Your task to perform on an android device: uninstall "HBO Max: Stream TV & Movies" Image 0: 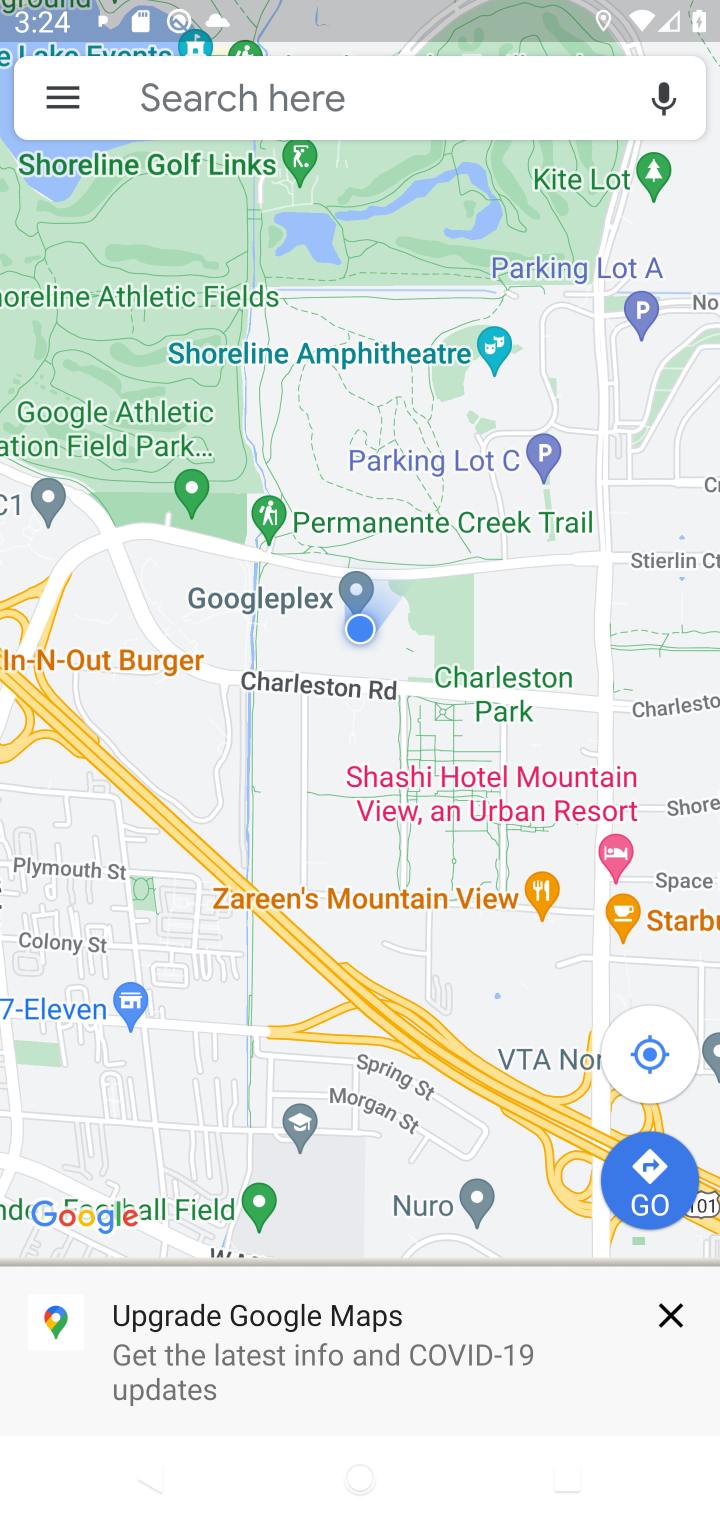
Step 0: press home button
Your task to perform on an android device: uninstall "HBO Max: Stream TV & Movies" Image 1: 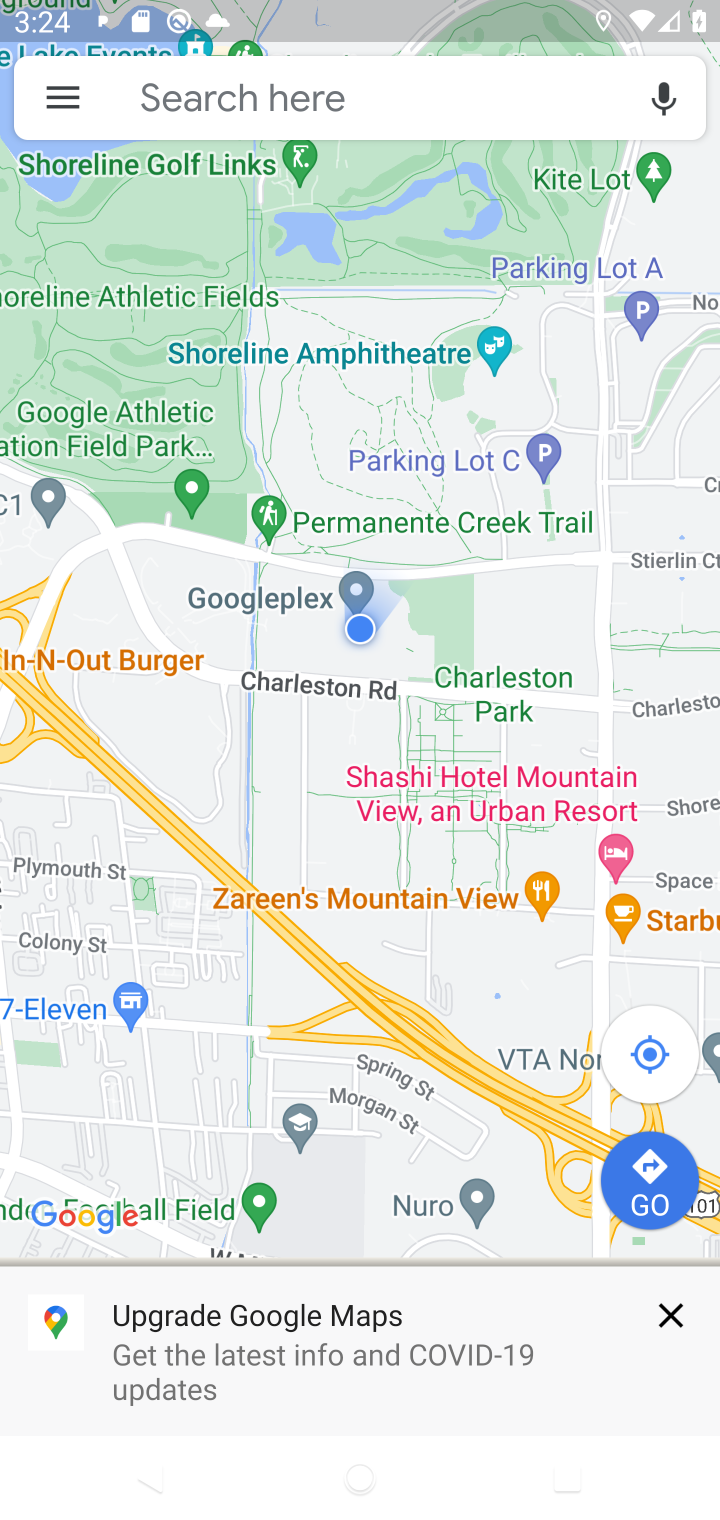
Step 1: press home button
Your task to perform on an android device: uninstall "HBO Max: Stream TV & Movies" Image 2: 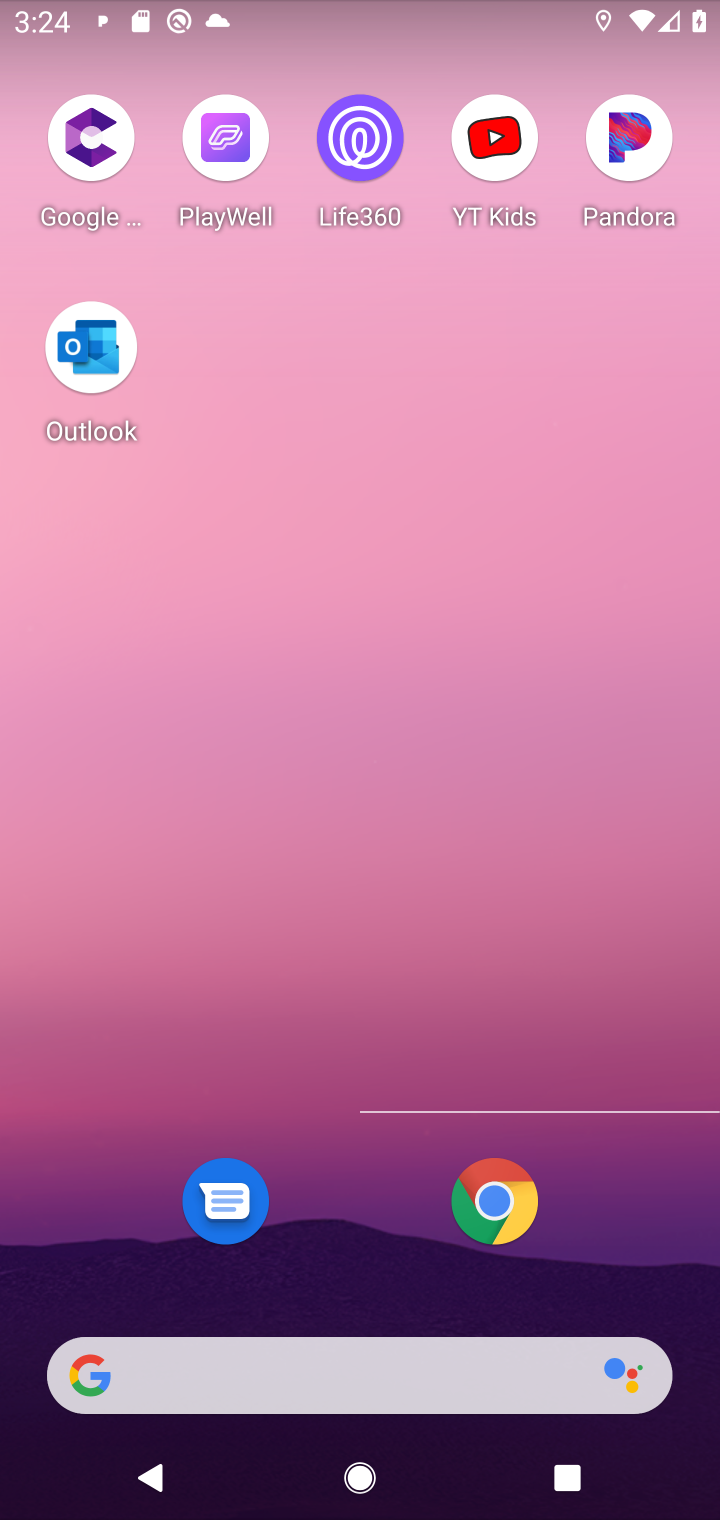
Step 2: press home button
Your task to perform on an android device: uninstall "HBO Max: Stream TV & Movies" Image 3: 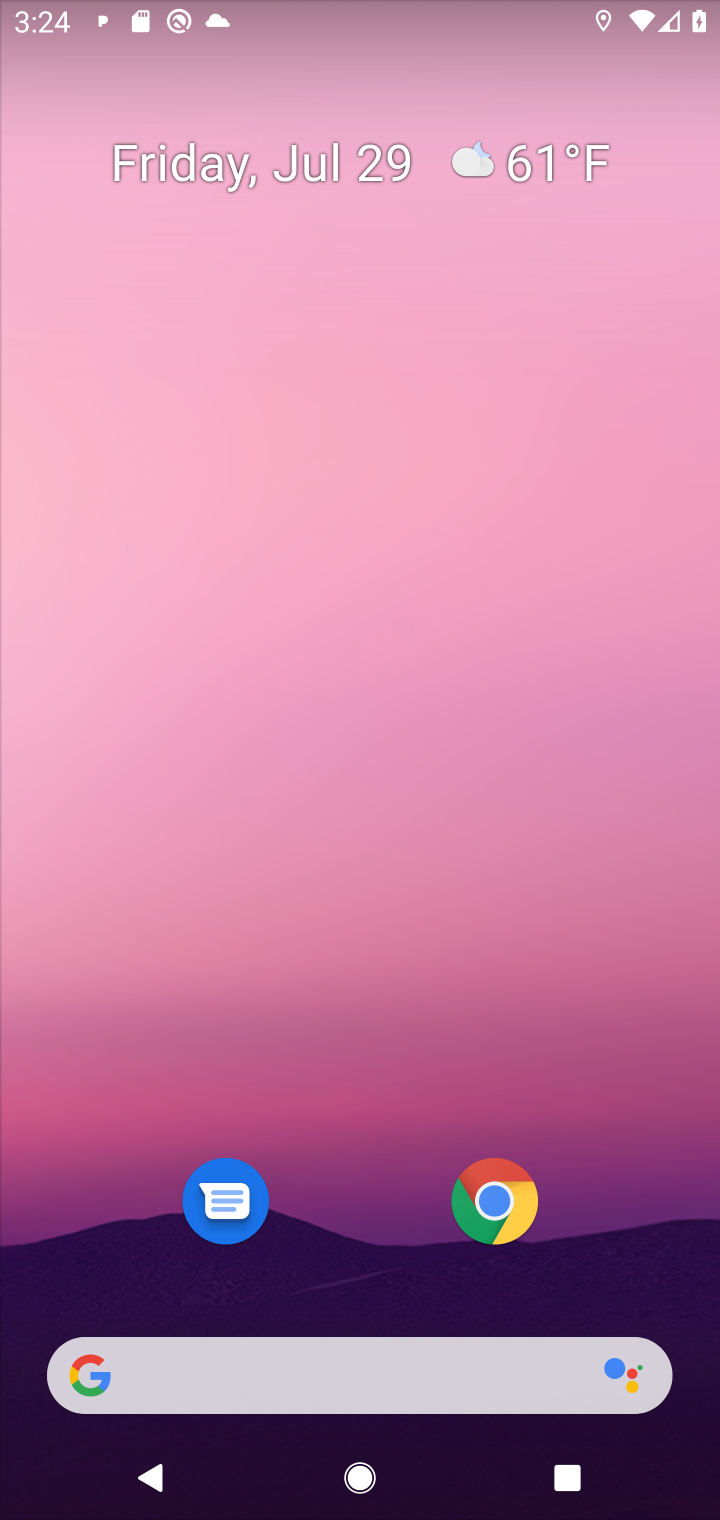
Step 3: press home button
Your task to perform on an android device: uninstall "HBO Max: Stream TV & Movies" Image 4: 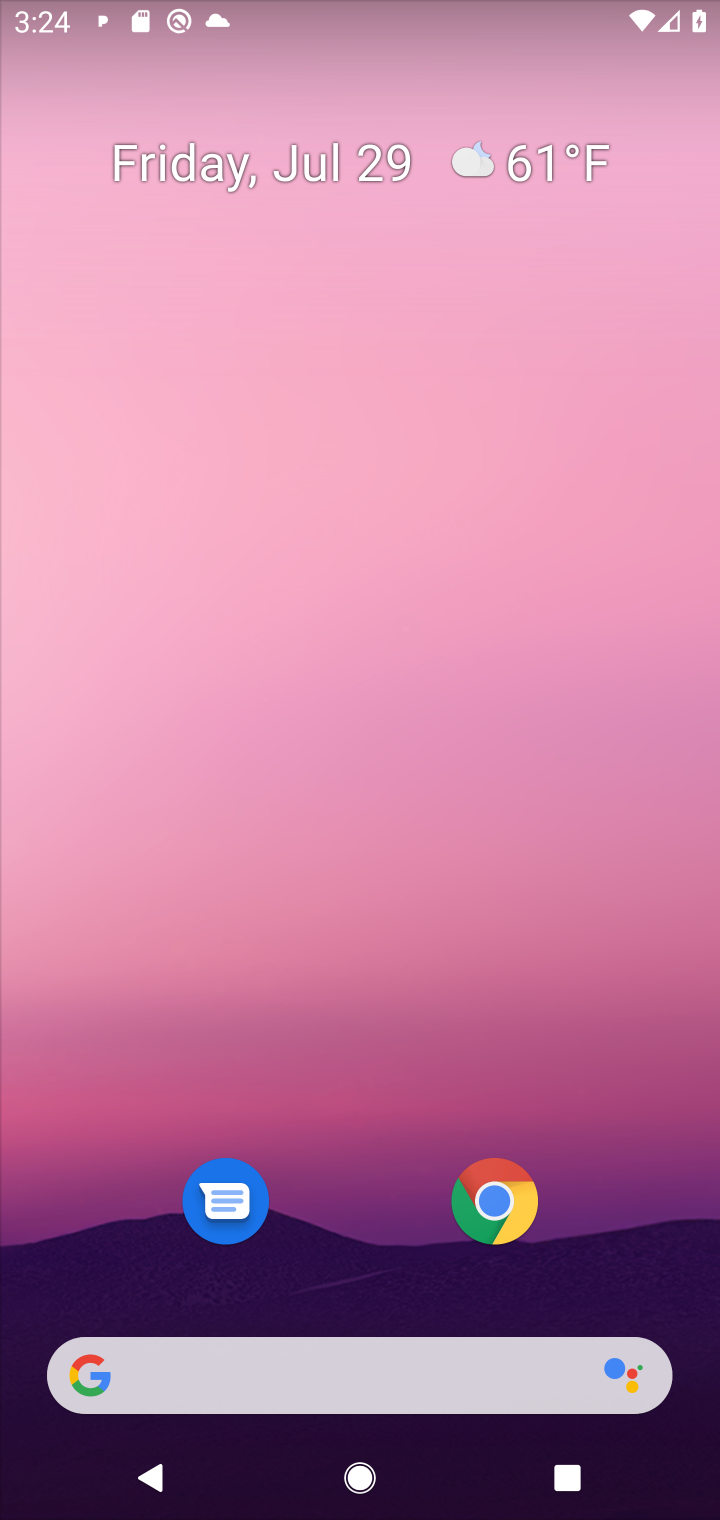
Step 4: click (406, 1021)
Your task to perform on an android device: uninstall "HBO Max: Stream TV & Movies" Image 5: 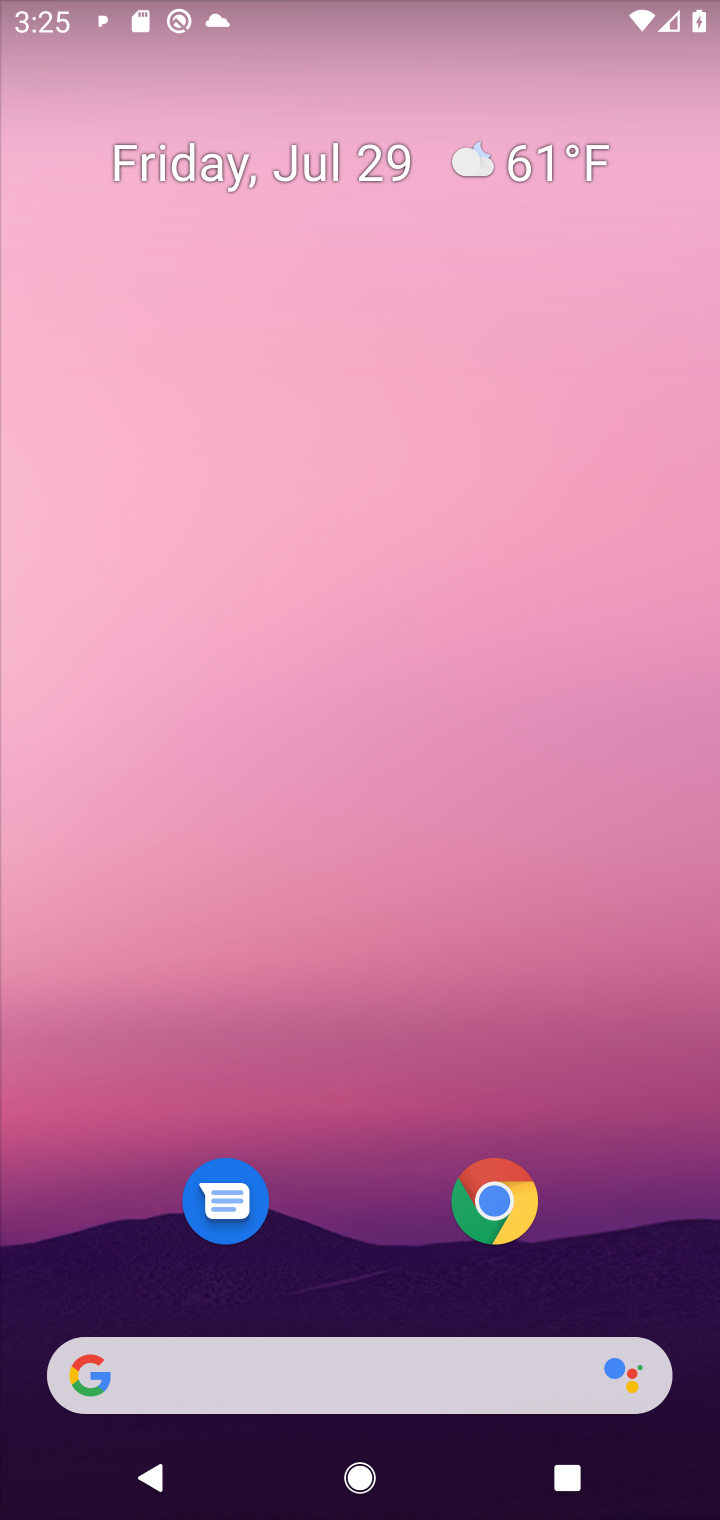
Step 5: drag from (488, 656) to (471, 456)
Your task to perform on an android device: uninstall "HBO Max: Stream TV & Movies" Image 6: 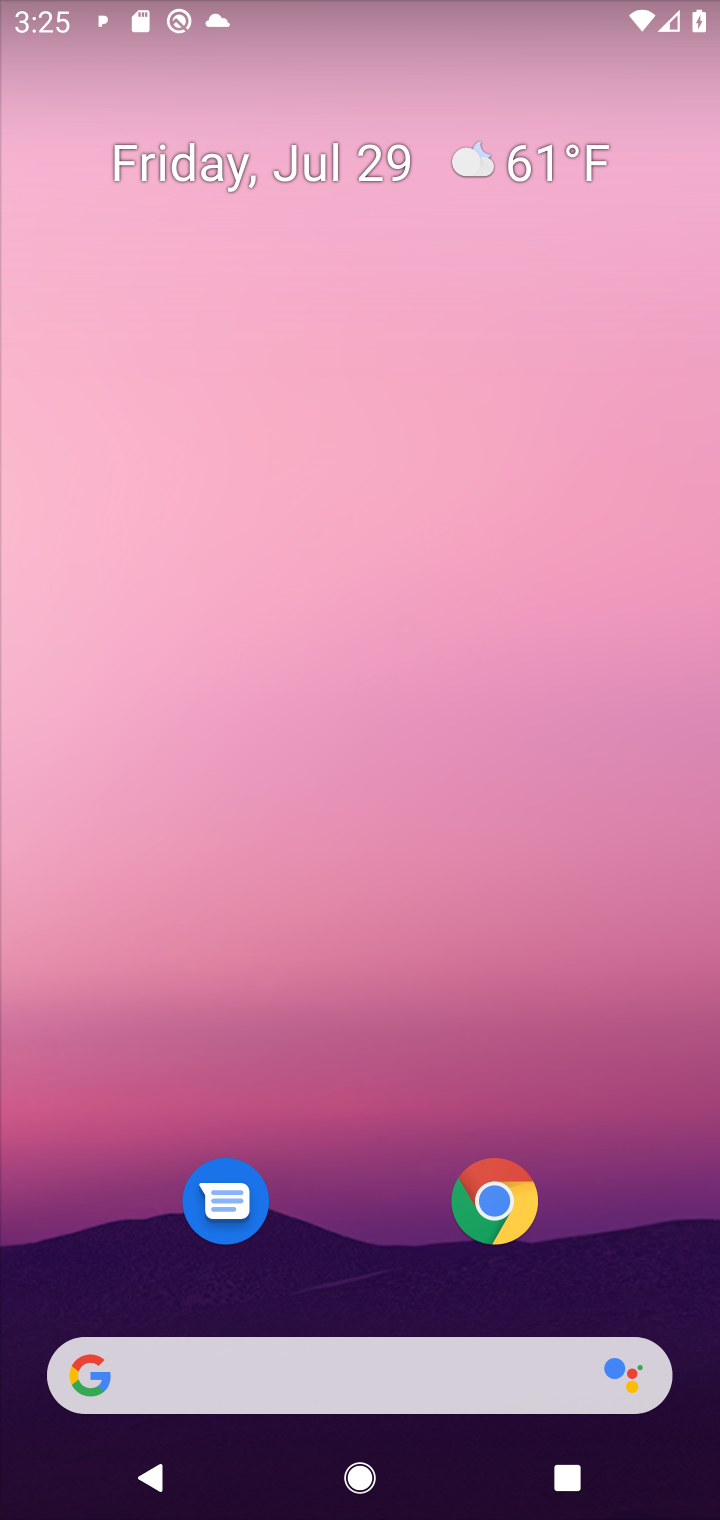
Step 6: drag from (643, 1293) to (402, 440)
Your task to perform on an android device: uninstall "HBO Max: Stream TV & Movies" Image 7: 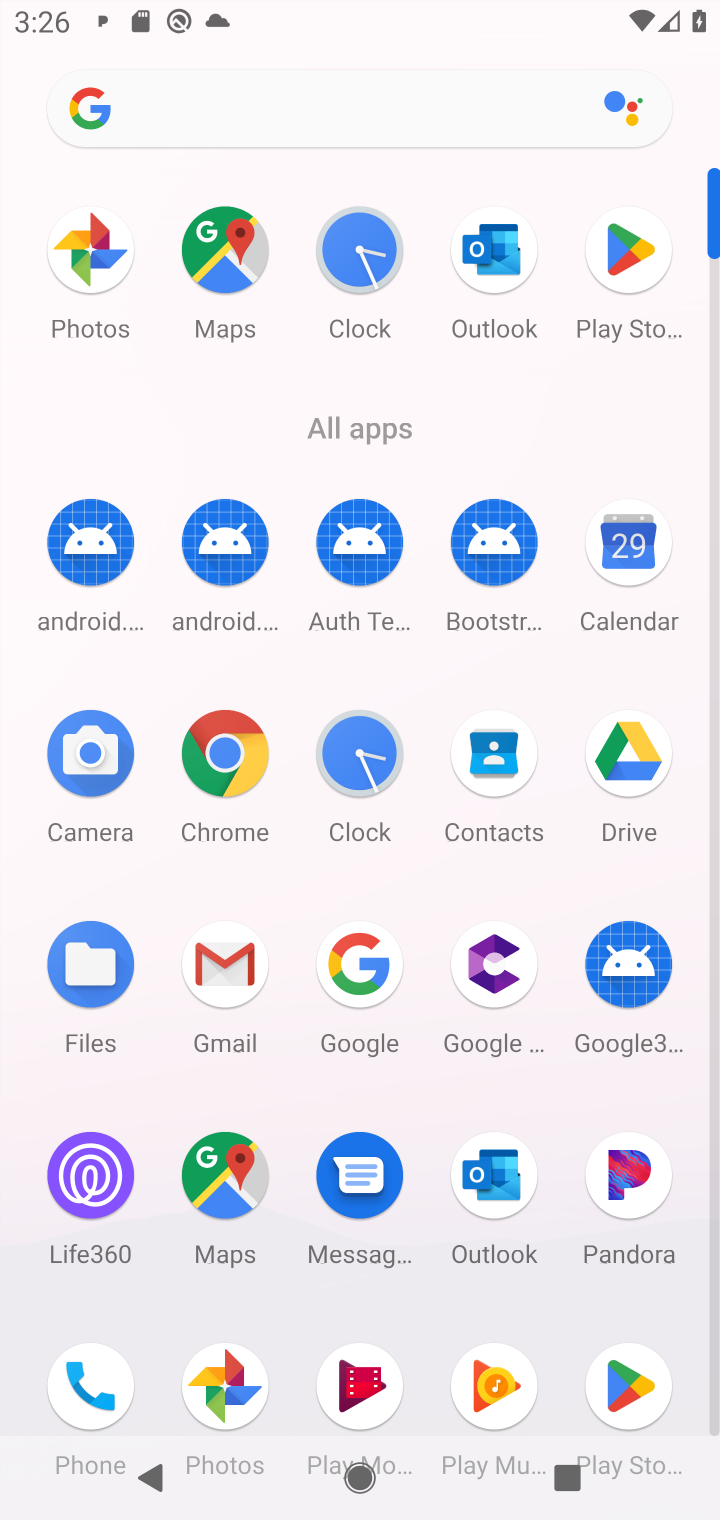
Step 7: click (632, 250)
Your task to perform on an android device: uninstall "HBO Max: Stream TV & Movies" Image 8: 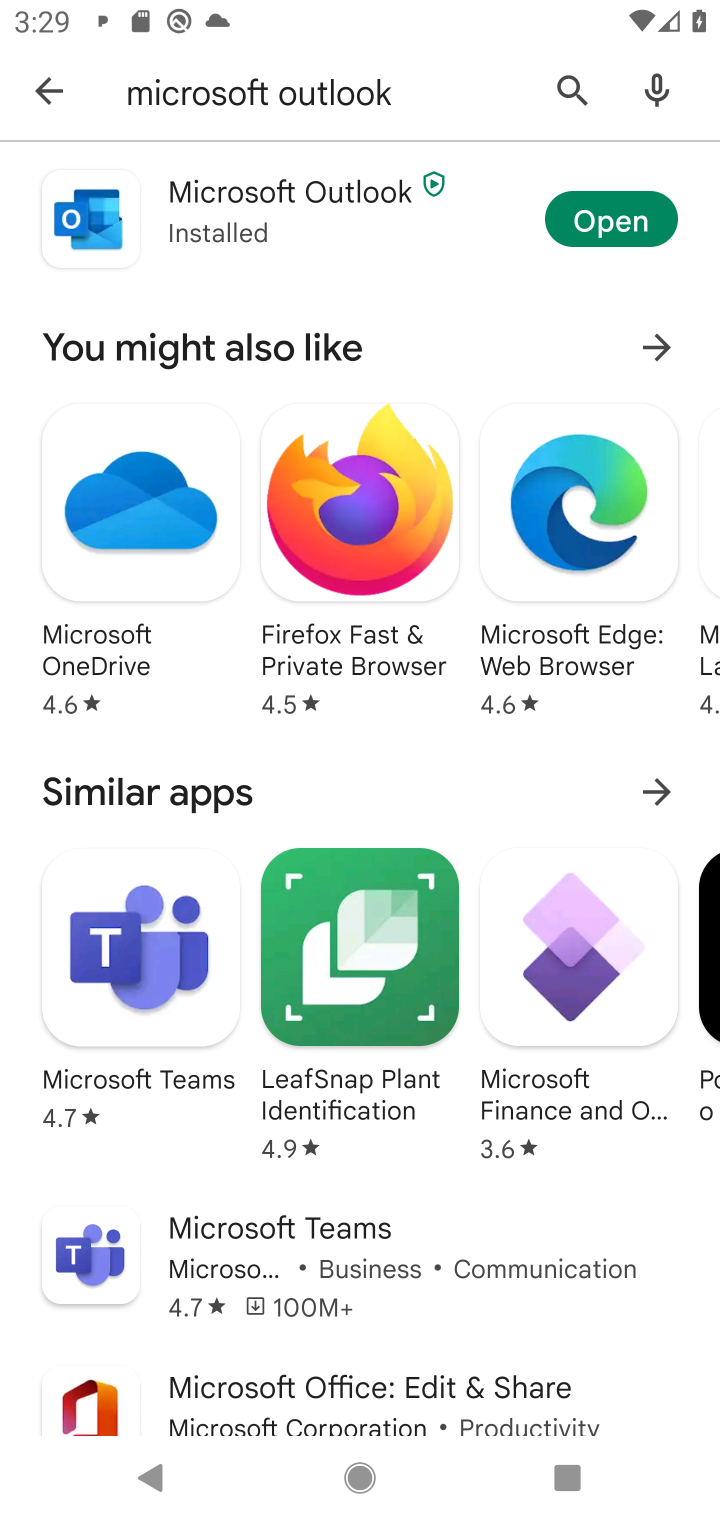
Step 8: click (557, 88)
Your task to perform on an android device: uninstall "HBO Max: Stream TV & Movies" Image 9: 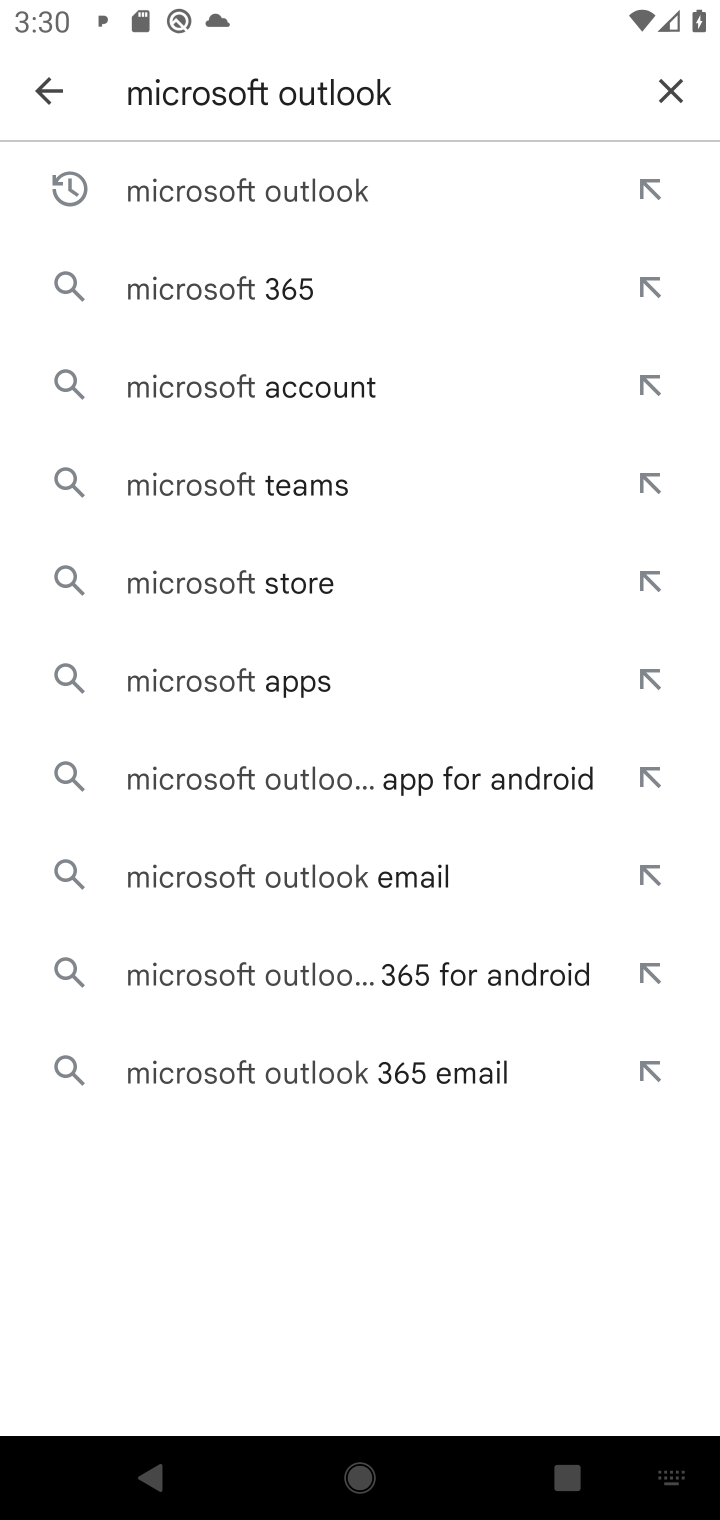
Step 9: click (657, 92)
Your task to perform on an android device: uninstall "HBO Max: Stream TV & Movies" Image 10: 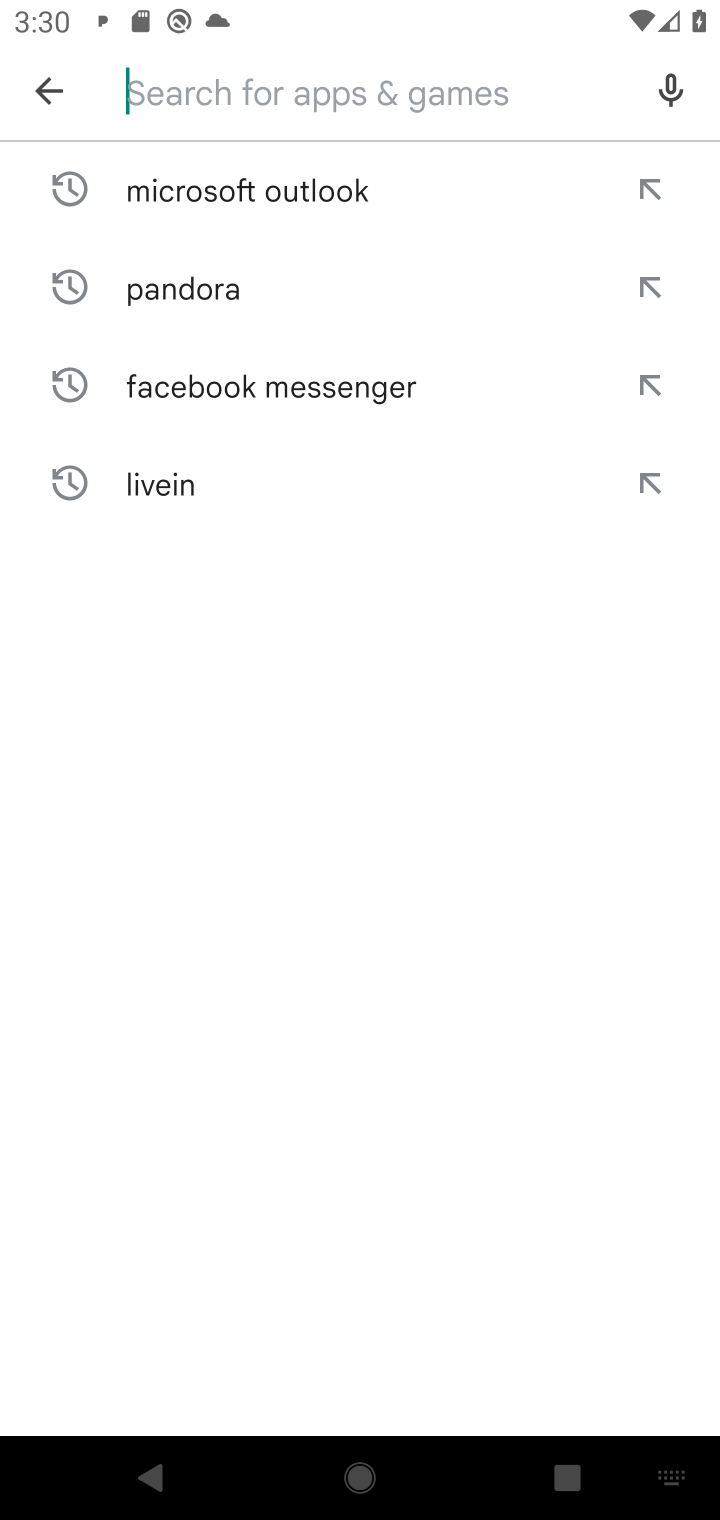
Step 10: type "HBO Max: Stream TV & Movi"
Your task to perform on an android device: uninstall "HBO Max: Stream TV & Movies" Image 11: 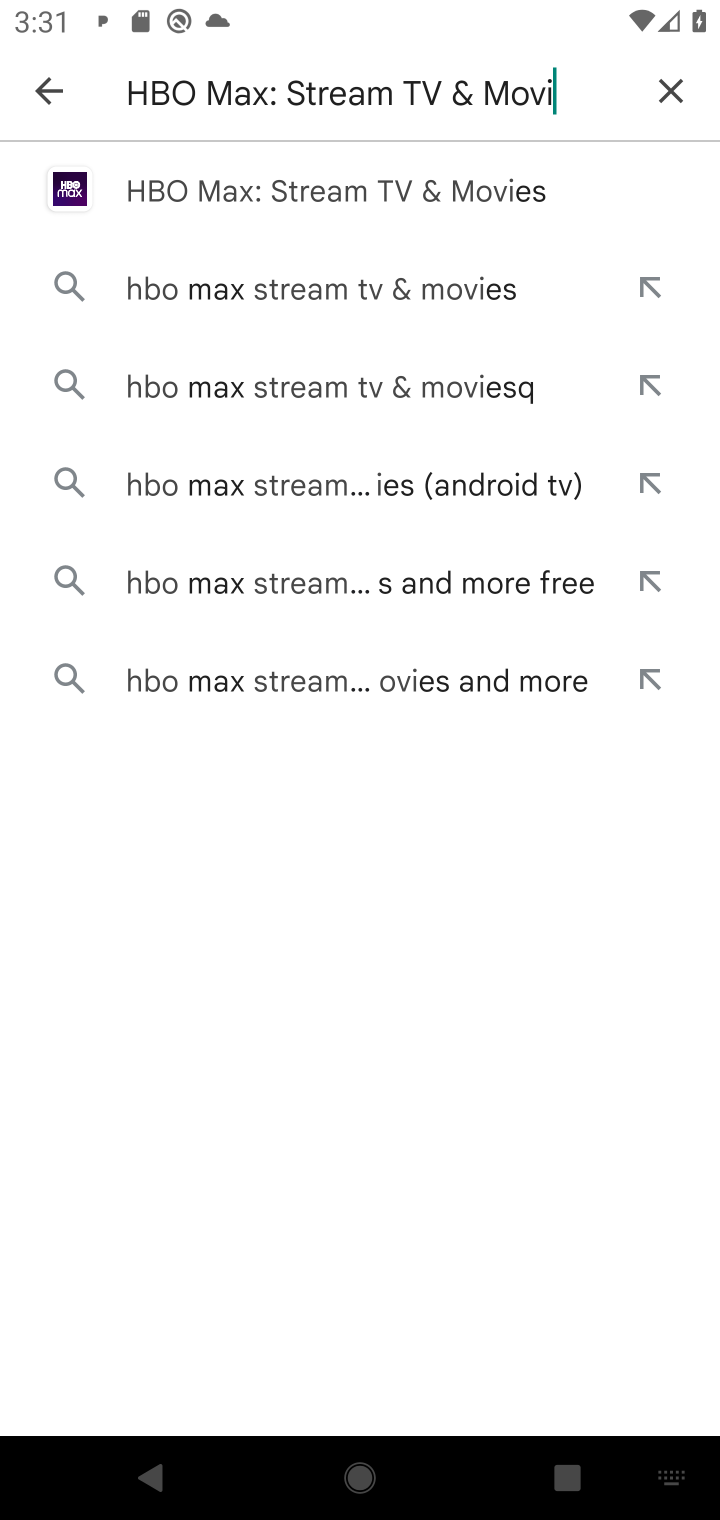
Step 11: click (364, 183)
Your task to perform on an android device: uninstall "HBO Max: Stream TV & Movies" Image 12: 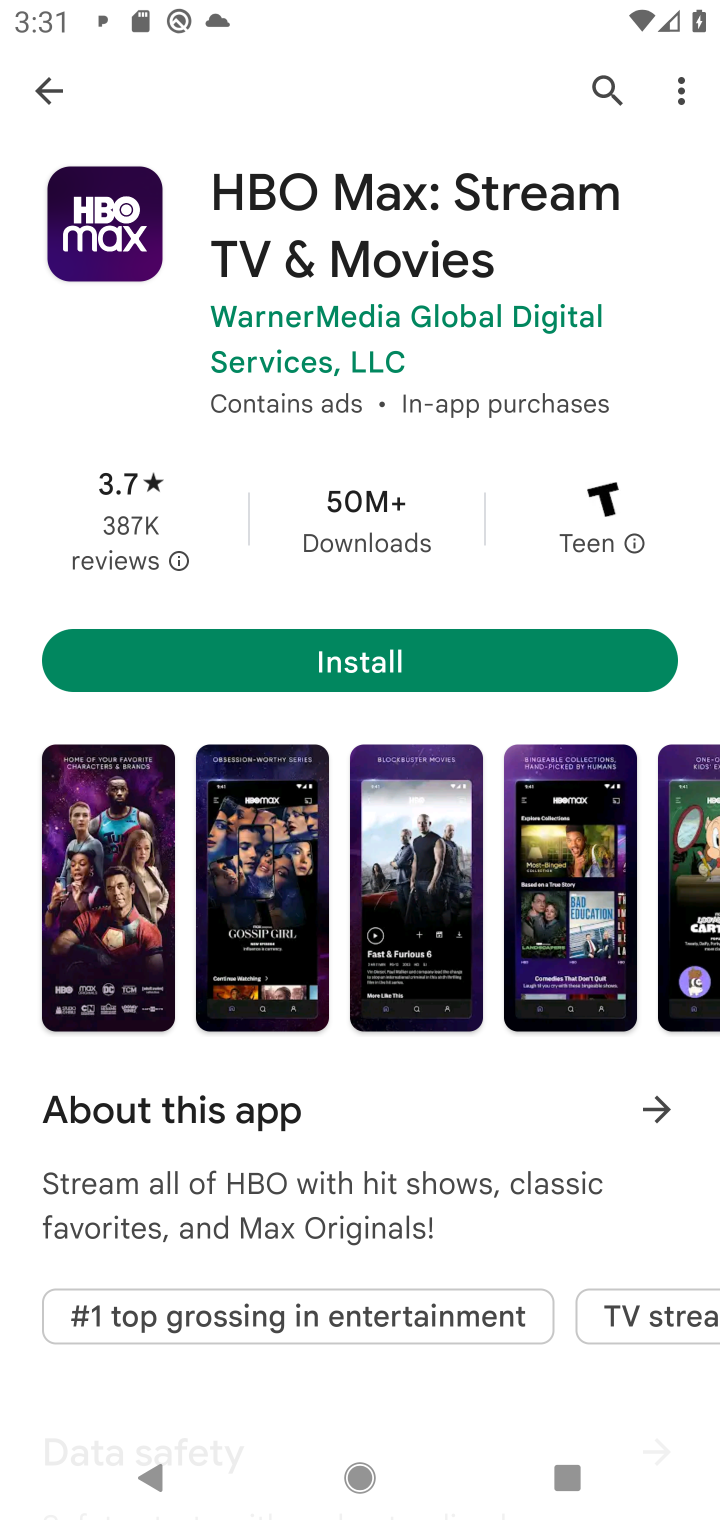
Step 12: click (420, 655)
Your task to perform on an android device: uninstall "HBO Max: Stream TV & Movies" Image 13: 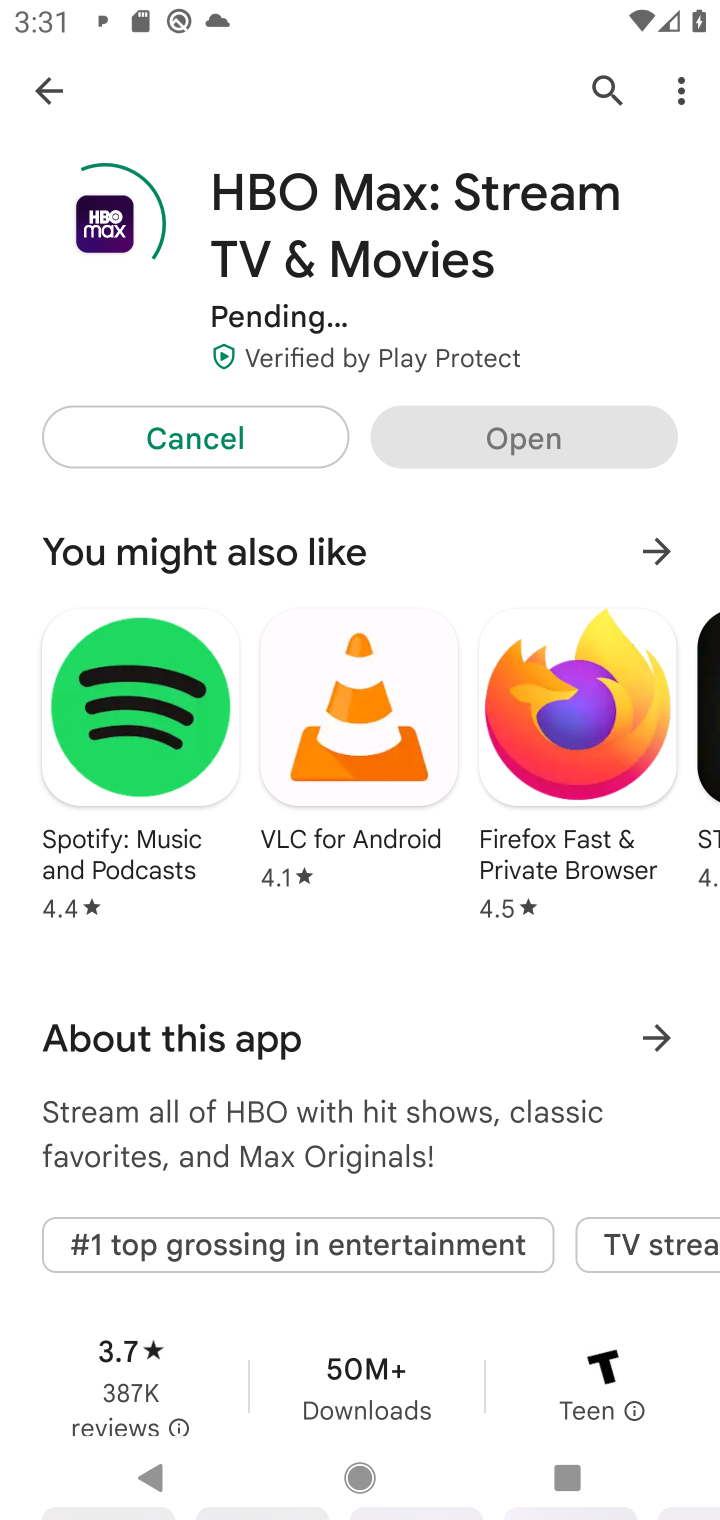
Step 13: click (197, 435)
Your task to perform on an android device: uninstall "HBO Max: Stream TV & Movies" Image 14: 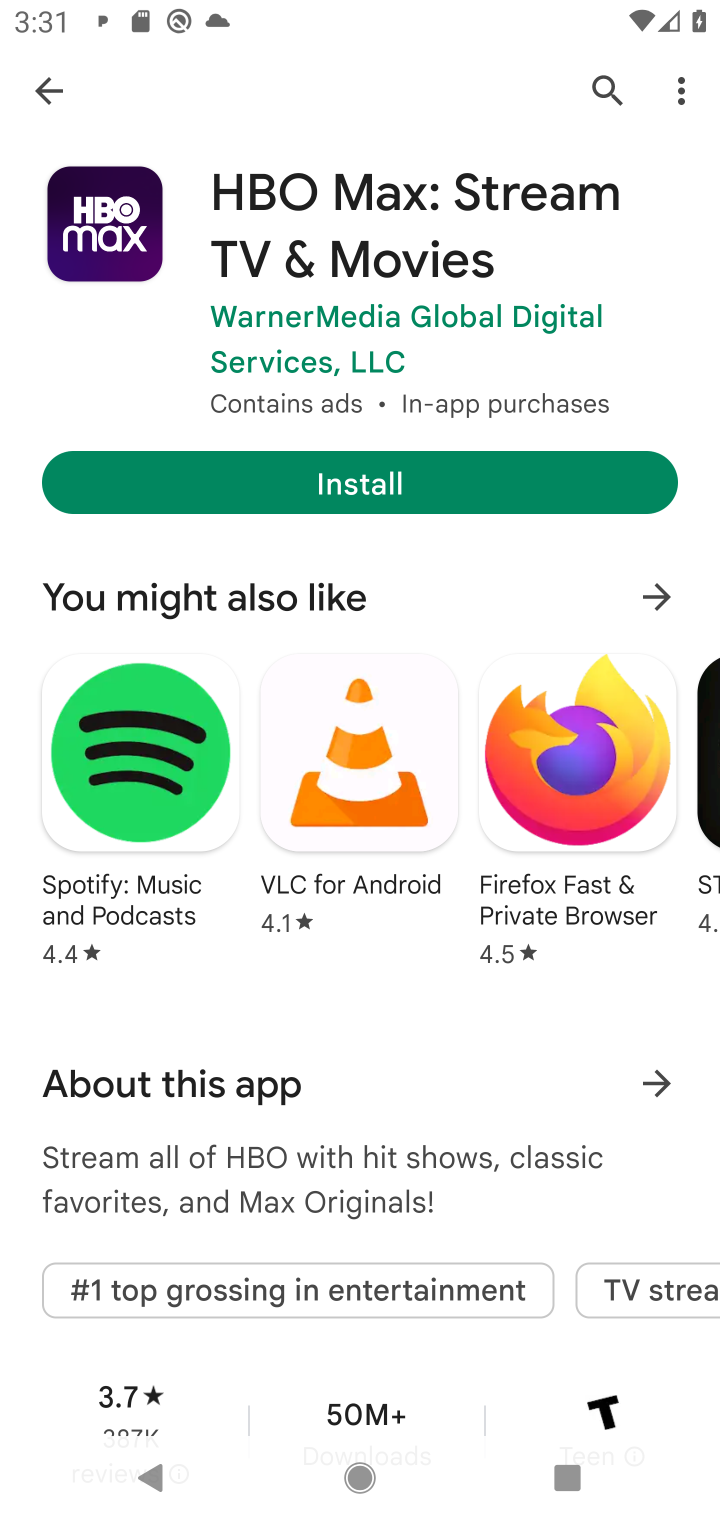
Step 14: press home button
Your task to perform on an android device: uninstall "HBO Max: Stream TV & Movies" Image 15: 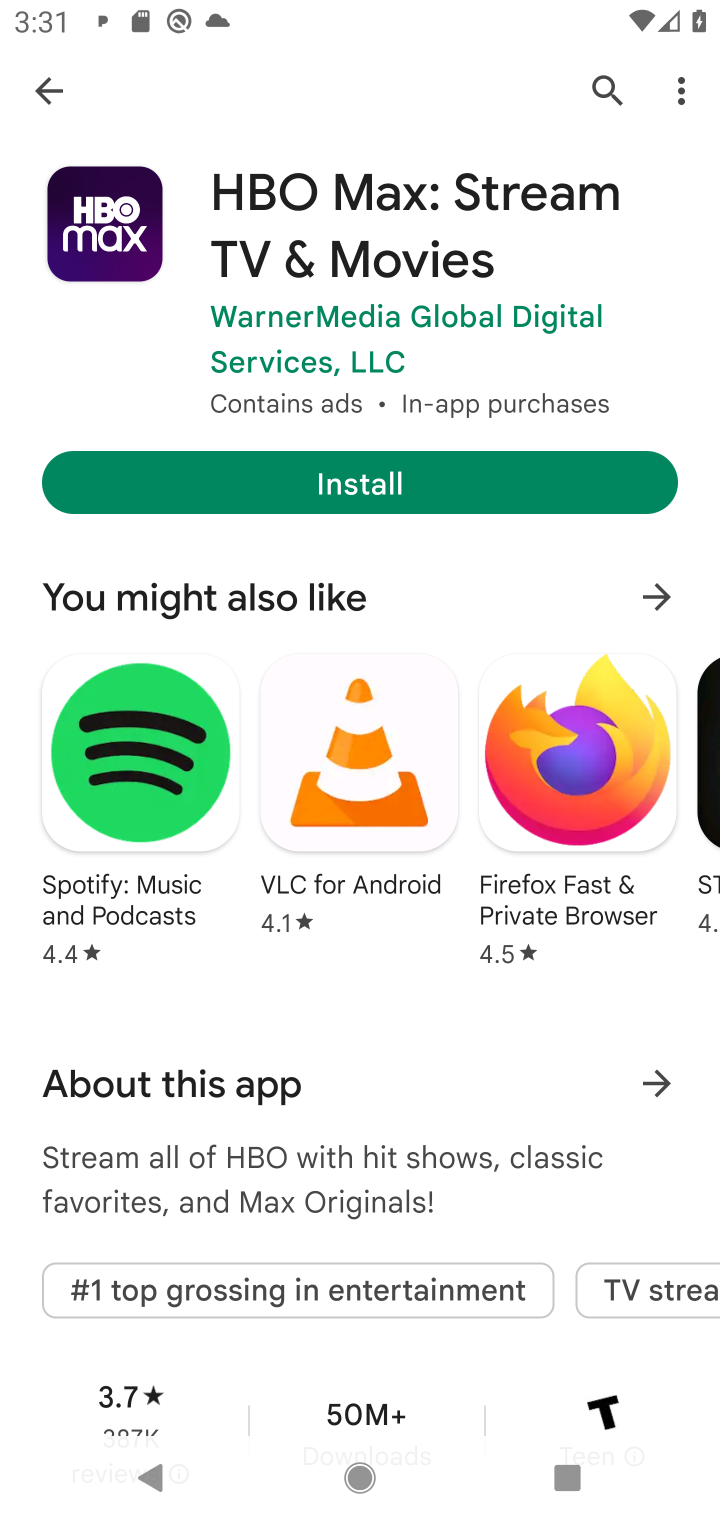
Step 15: press home button
Your task to perform on an android device: uninstall "HBO Max: Stream TV & Movies" Image 16: 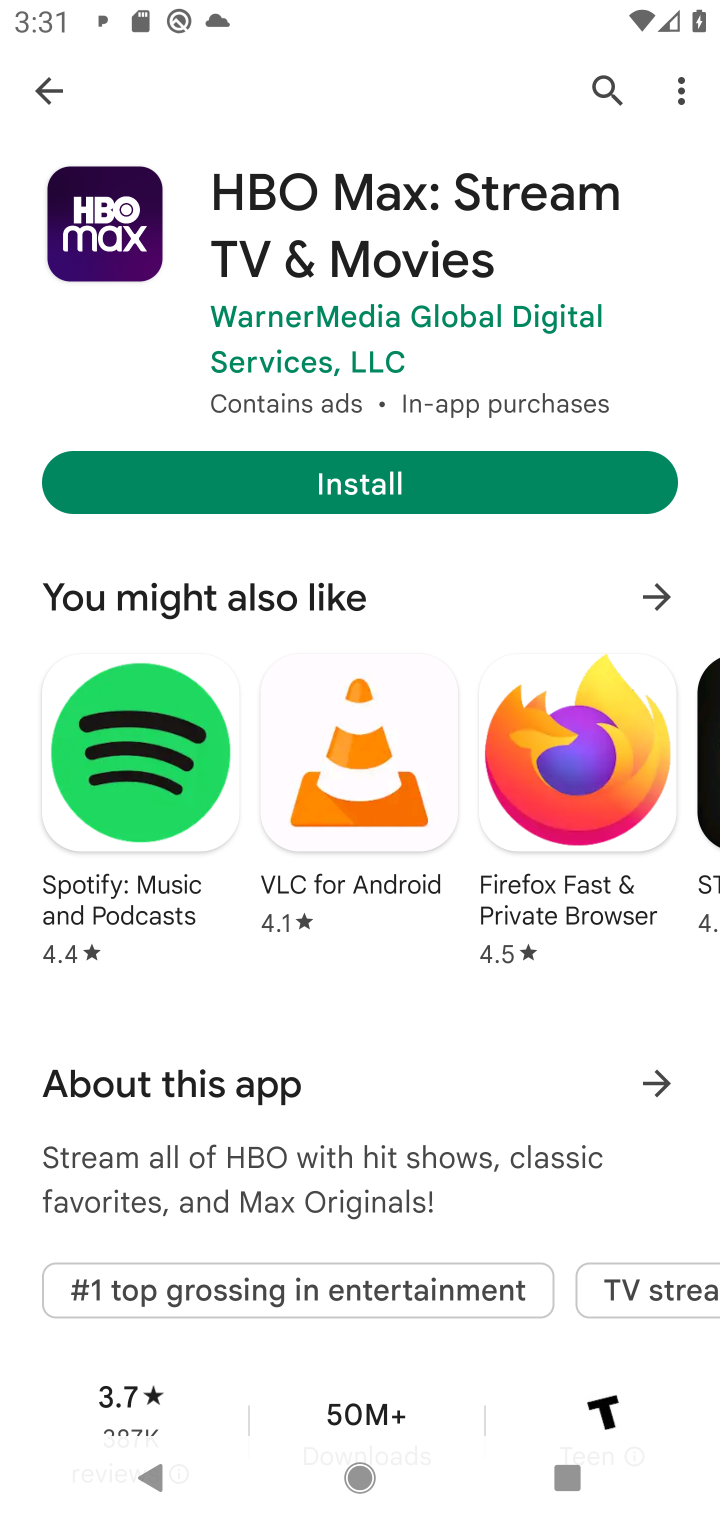
Step 16: click (344, 79)
Your task to perform on an android device: uninstall "HBO Max: Stream TV & Movies" Image 17: 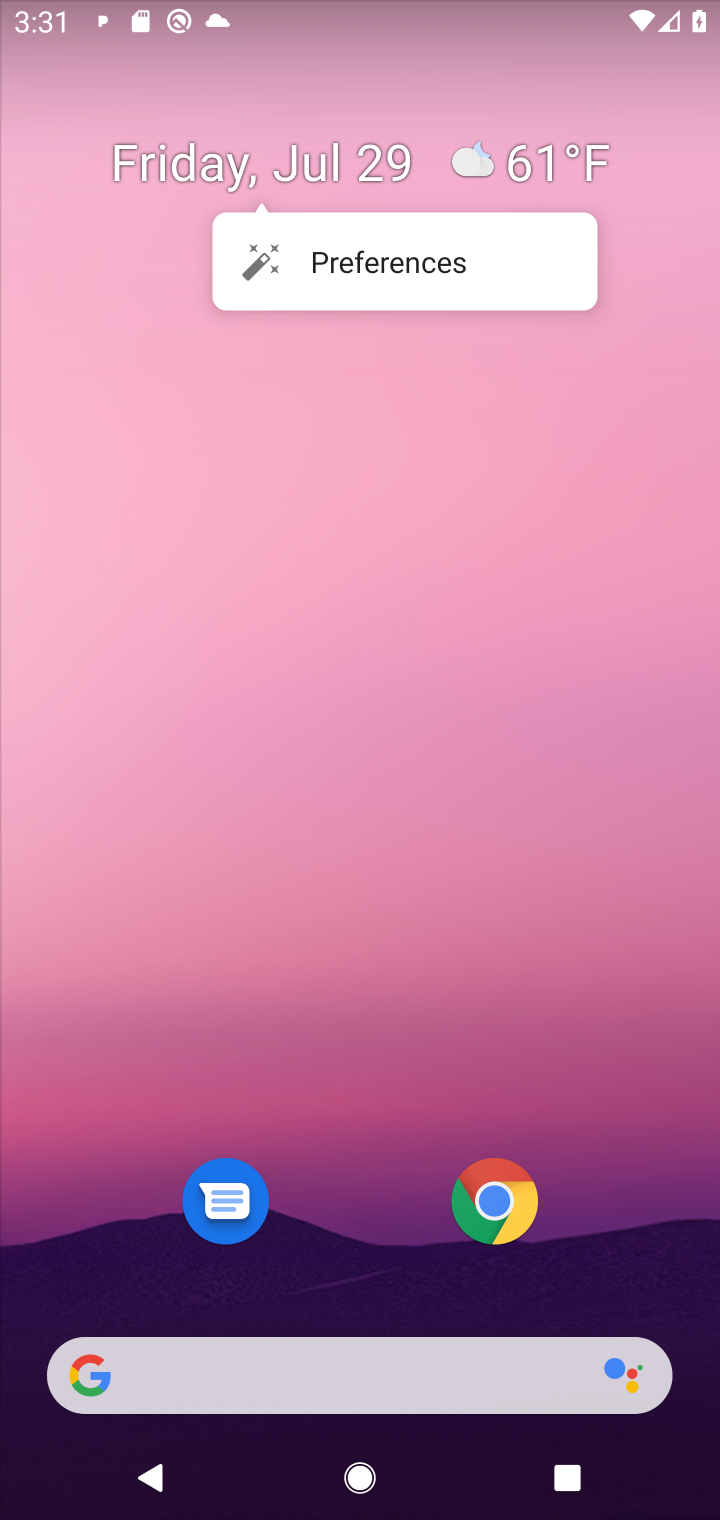
Step 17: task complete